Your task to perform on an android device: turn off translation in the chrome app Image 0: 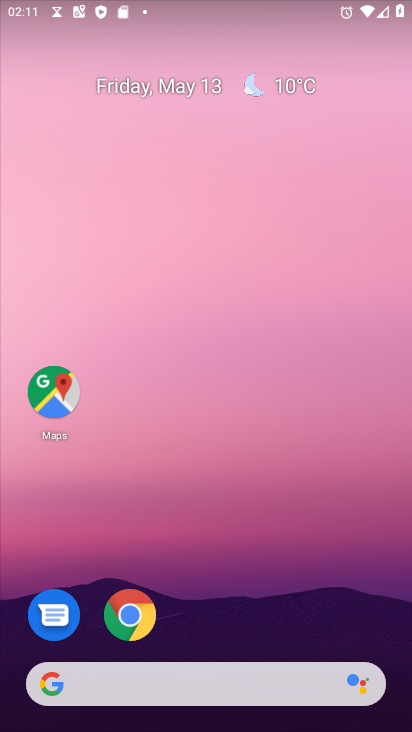
Step 0: click (120, 621)
Your task to perform on an android device: turn off translation in the chrome app Image 1: 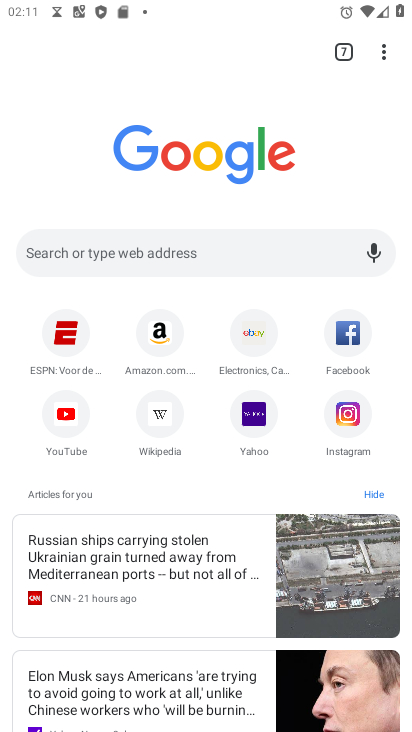
Step 1: click (382, 55)
Your task to perform on an android device: turn off translation in the chrome app Image 2: 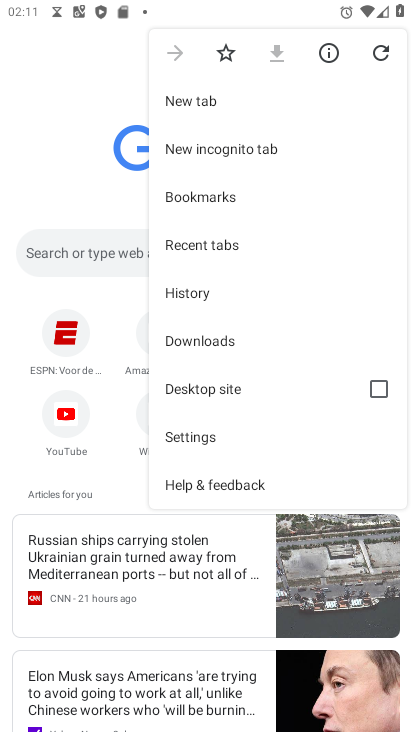
Step 2: click (191, 436)
Your task to perform on an android device: turn off translation in the chrome app Image 3: 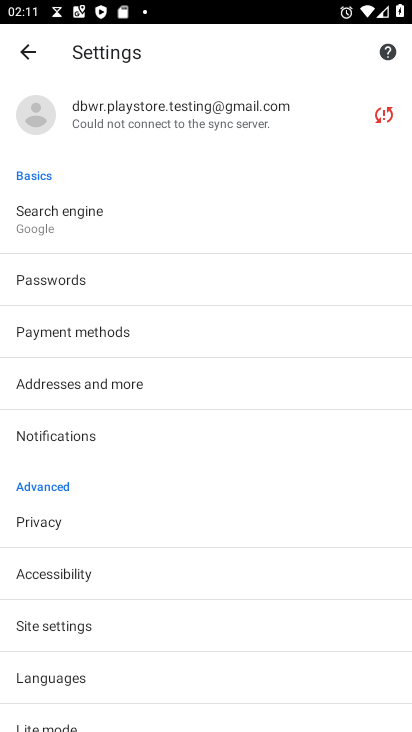
Step 3: click (48, 678)
Your task to perform on an android device: turn off translation in the chrome app Image 4: 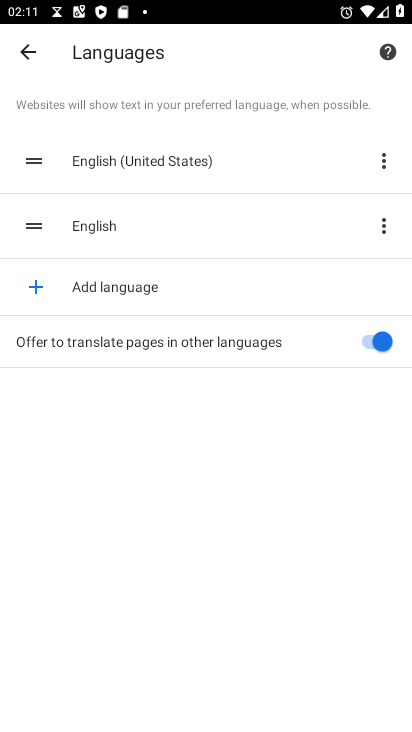
Step 4: click (377, 336)
Your task to perform on an android device: turn off translation in the chrome app Image 5: 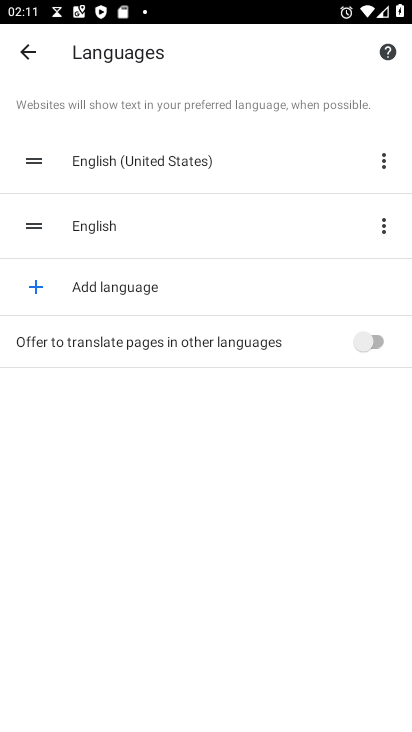
Step 5: task complete